Your task to perform on an android device: Open settings on Google Maps Image 0: 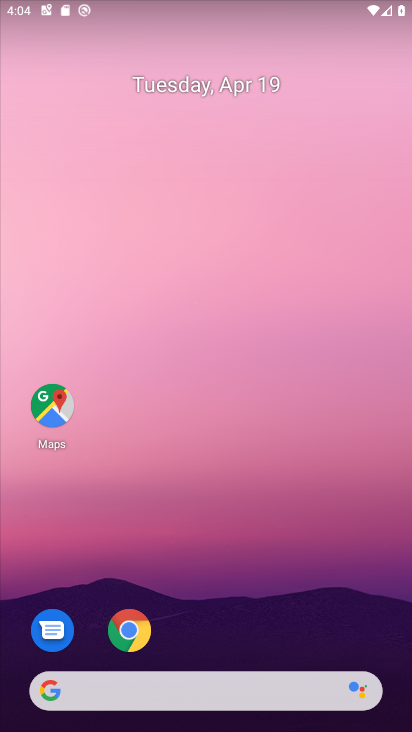
Step 0: click (51, 401)
Your task to perform on an android device: Open settings on Google Maps Image 1: 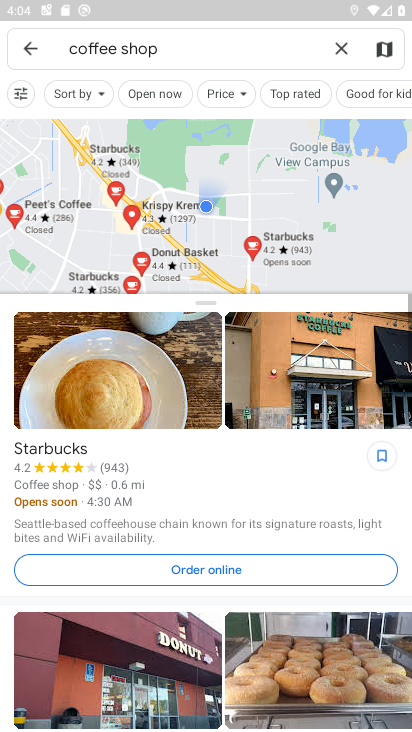
Step 1: press back button
Your task to perform on an android device: Open settings on Google Maps Image 2: 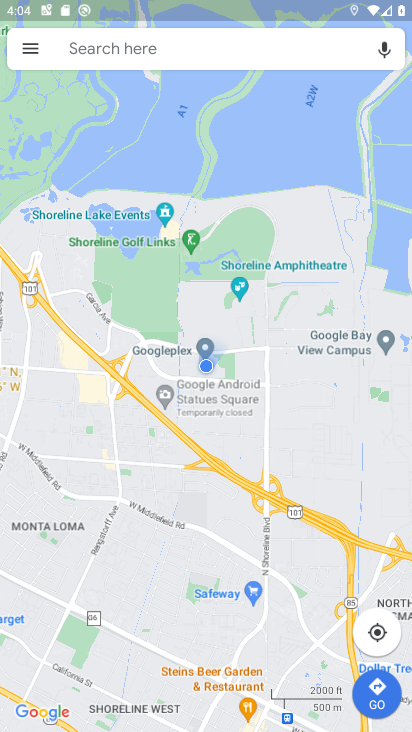
Step 2: click (39, 50)
Your task to perform on an android device: Open settings on Google Maps Image 3: 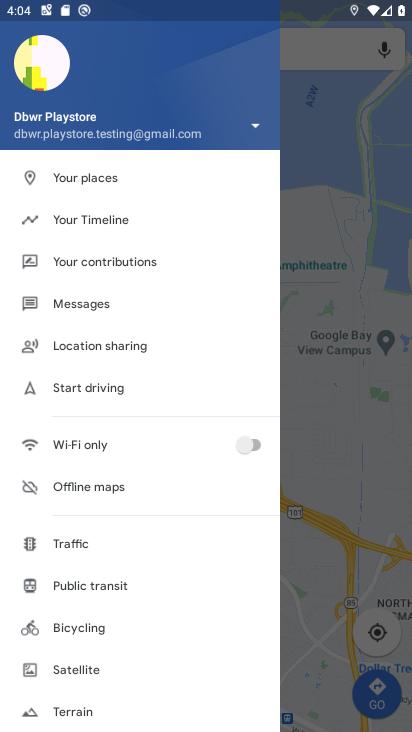
Step 3: drag from (115, 702) to (138, 248)
Your task to perform on an android device: Open settings on Google Maps Image 4: 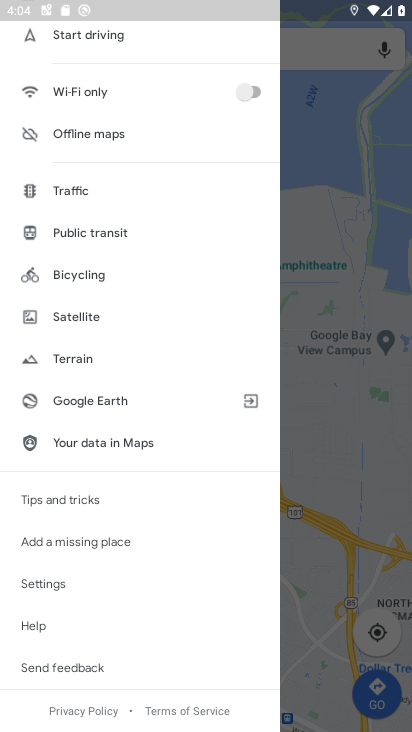
Step 4: click (74, 585)
Your task to perform on an android device: Open settings on Google Maps Image 5: 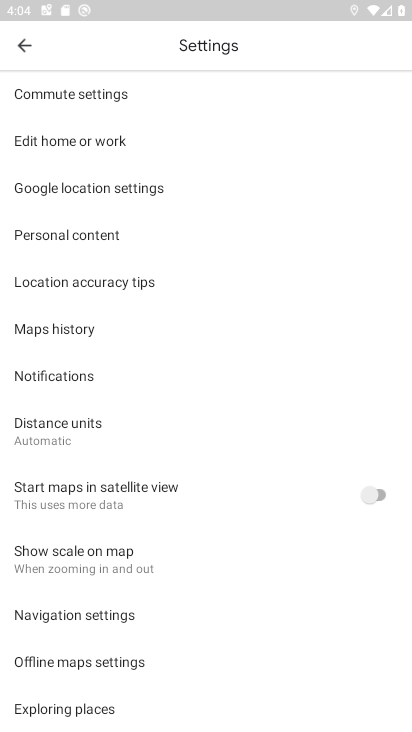
Step 5: task complete